Your task to perform on an android device: allow notifications from all sites in the chrome app Image 0: 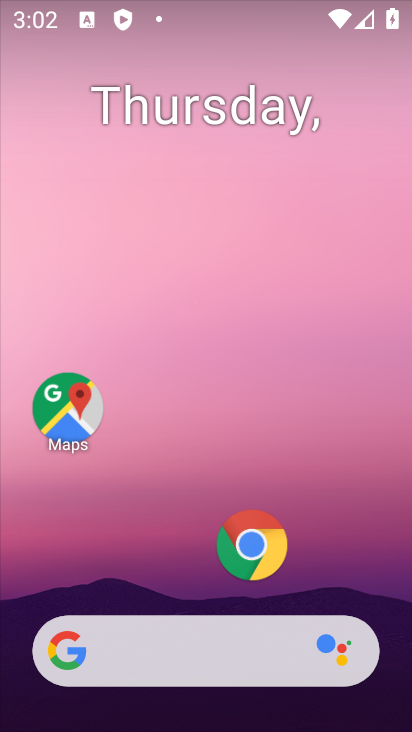
Step 0: drag from (230, 647) to (285, 15)
Your task to perform on an android device: allow notifications from all sites in the chrome app Image 1: 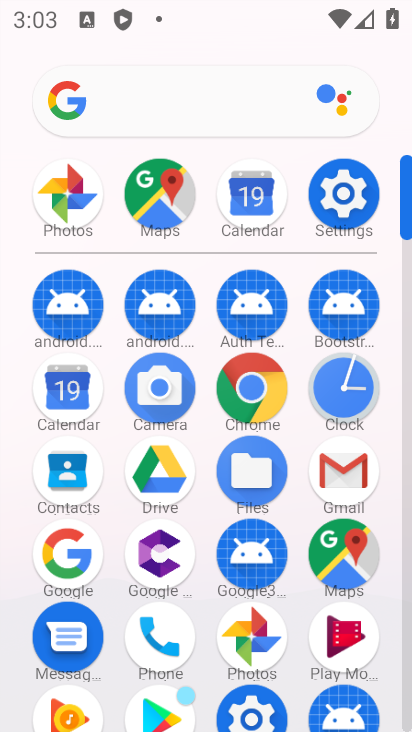
Step 1: click (248, 381)
Your task to perform on an android device: allow notifications from all sites in the chrome app Image 2: 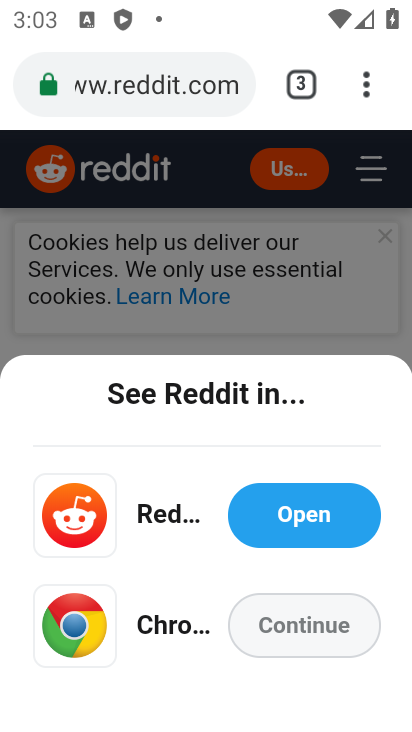
Step 2: drag from (373, 81) to (122, 602)
Your task to perform on an android device: allow notifications from all sites in the chrome app Image 3: 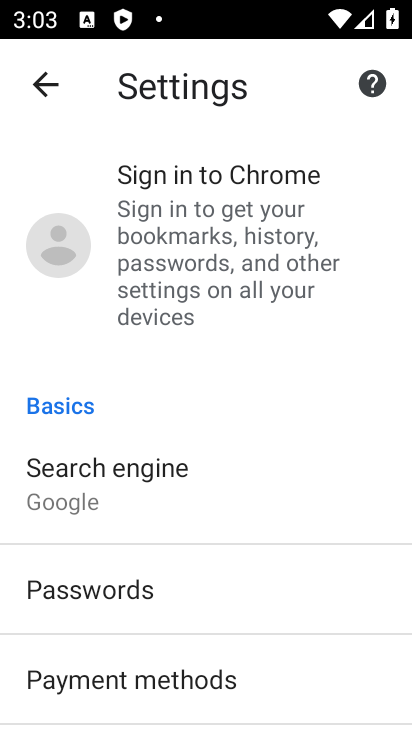
Step 3: drag from (222, 703) to (308, 133)
Your task to perform on an android device: allow notifications from all sites in the chrome app Image 4: 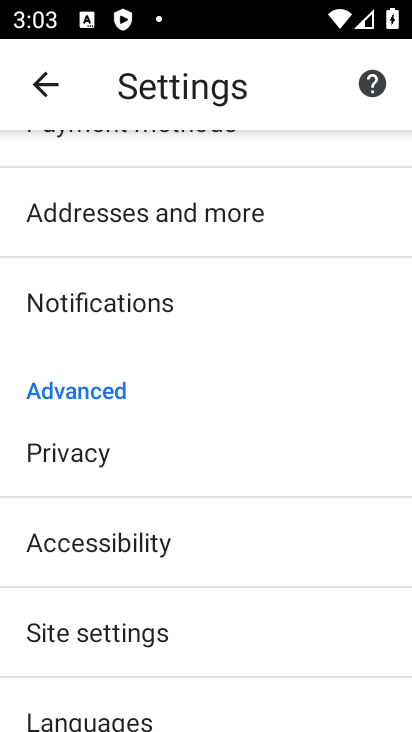
Step 4: click (165, 295)
Your task to perform on an android device: allow notifications from all sites in the chrome app Image 5: 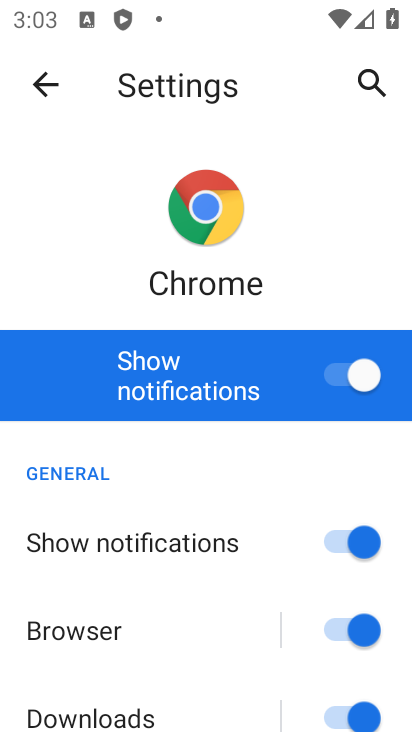
Step 5: task complete